Your task to perform on an android device: toggle priority inbox in the gmail app Image 0: 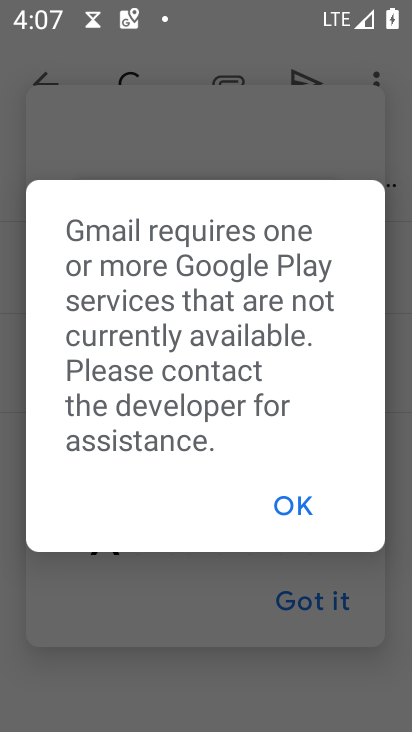
Step 0: press home button
Your task to perform on an android device: toggle priority inbox in the gmail app Image 1: 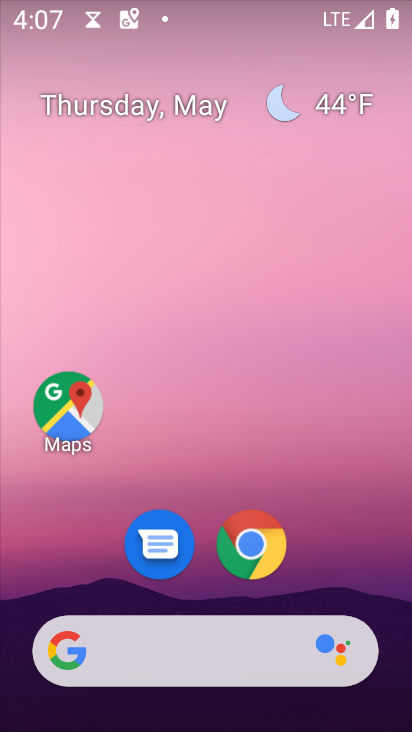
Step 1: drag from (358, 564) to (386, 97)
Your task to perform on an android device: toggle priority inbox in the gmail app Image 2: 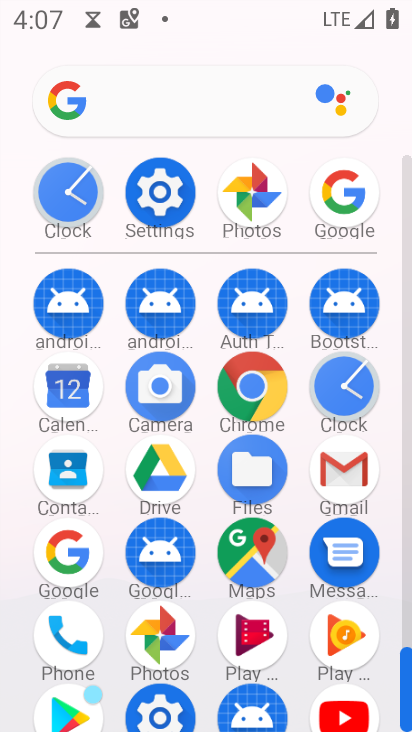
Step 2: click (337, 475)
Your task to perform on an android device: toggle priority inbox in the gmail app Image 3: 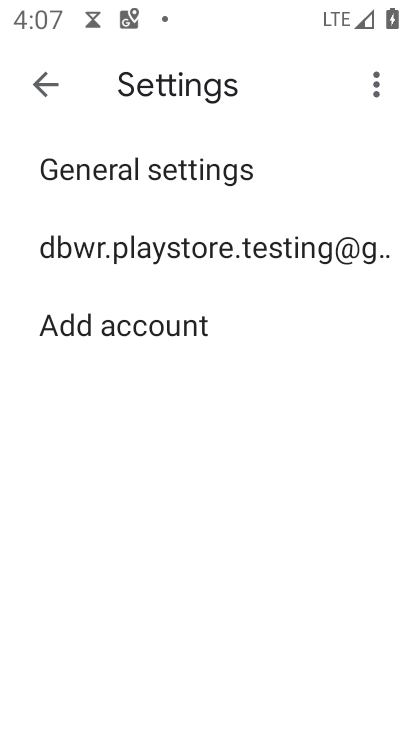
Step 3: click (206, 237)
Your task to perform on an android device: toggle priority inbox in the gmail app Image 4: 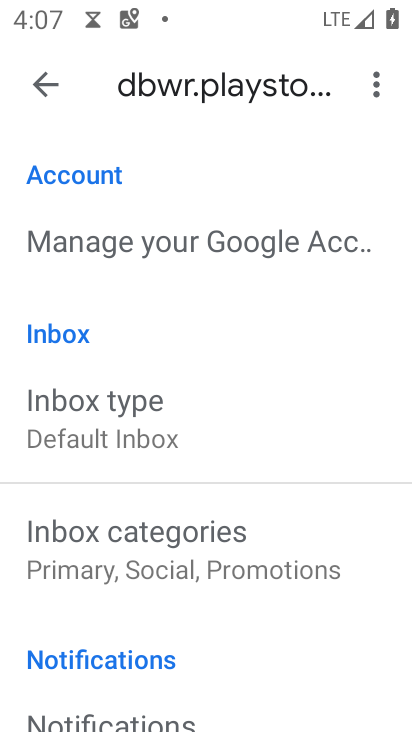
Step 4: click (154, 421)
Your task to perform on an android device: toggle priority inbox in the gmail app Image 5: 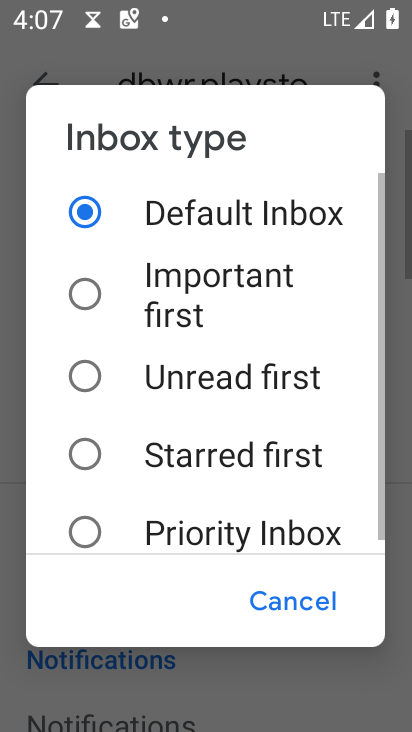
Step 5: click (135, 520)
Your task to perform on an android device: toggle priority inbox in the gmail app Image 6: 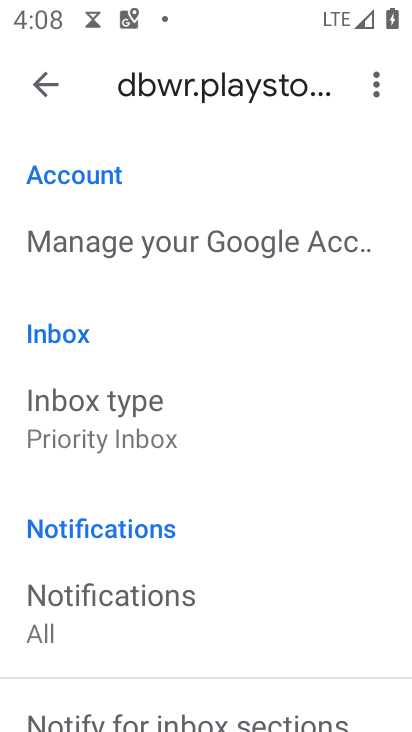
Step 6: task complete